Your task to perform on an android device: Open Google Chrome and open the bookmarks view Image 0: 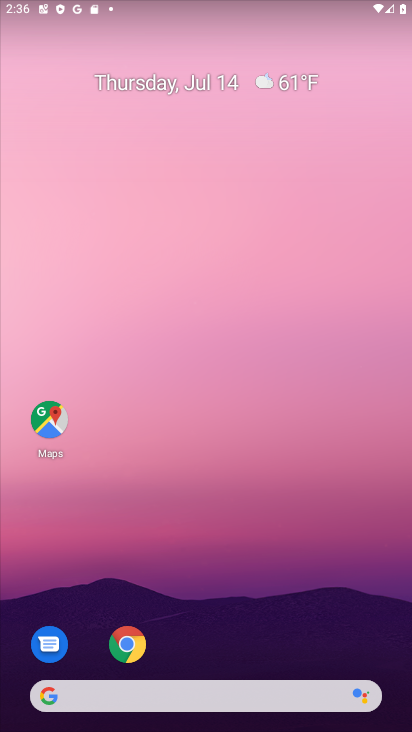
Step 0: drag from (184, 571) to (87, 31)
Your task to perform on an android device: Open Google Chrome and open the bookmarks view Image 1: 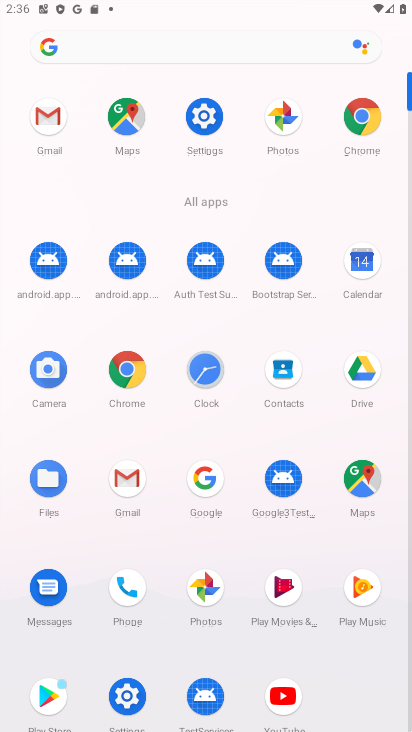
Step 1: click (345, 119)
Your task to perform on an android device: Open Google Chrome and open the bookmarks view Image 2: 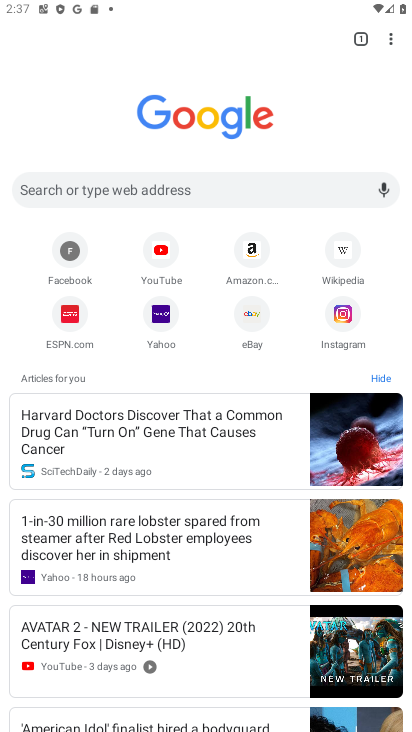
Step 2: task complete